Your task to perform on an android device: Open calendar and show me the third week of next month Image 0: 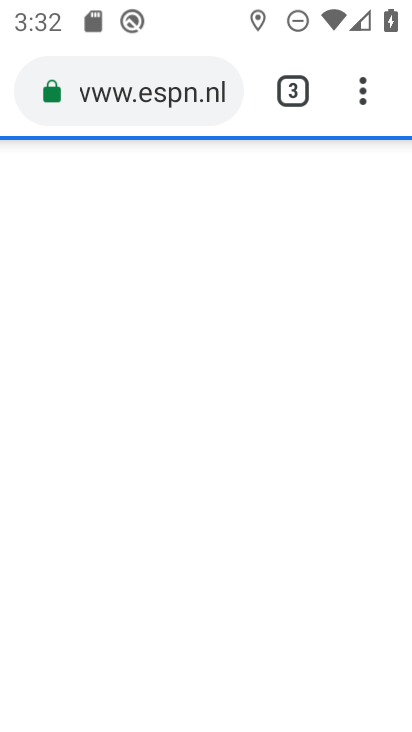
Step 0: press home button
Your task to perform on an android device: Open calendar and show me the third week of next month Image 1: 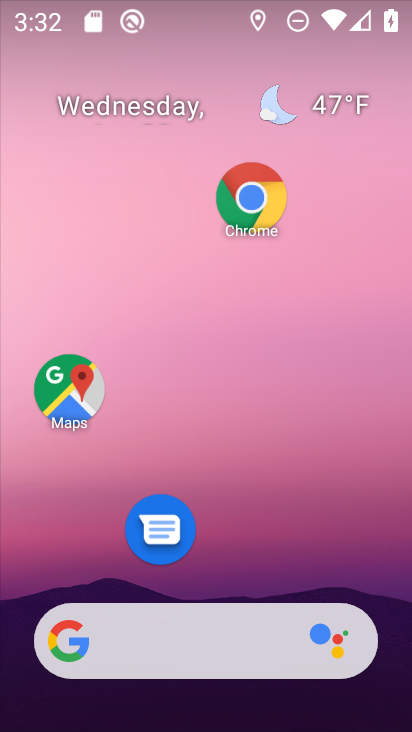
Step 1: drag from (257, 410) to (214, 142)
Your task to perform on an android device: Open calendar and show me the third week of next month Image 2: 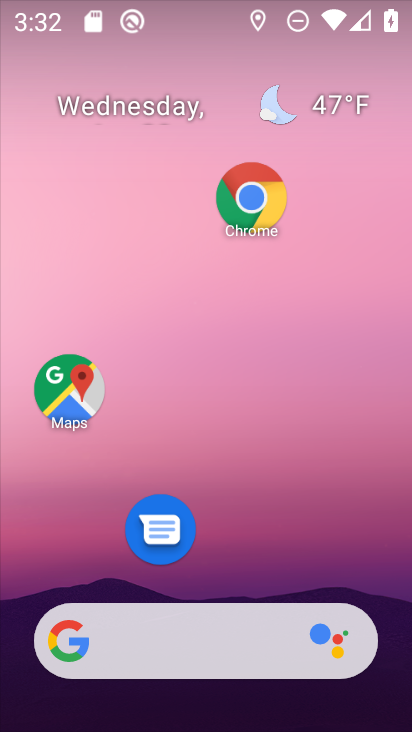
Step 2: drag from (248, 538) to (234, 55)
Your task to perform on an android device: Open calendar and show me the third week of next month Image 3: 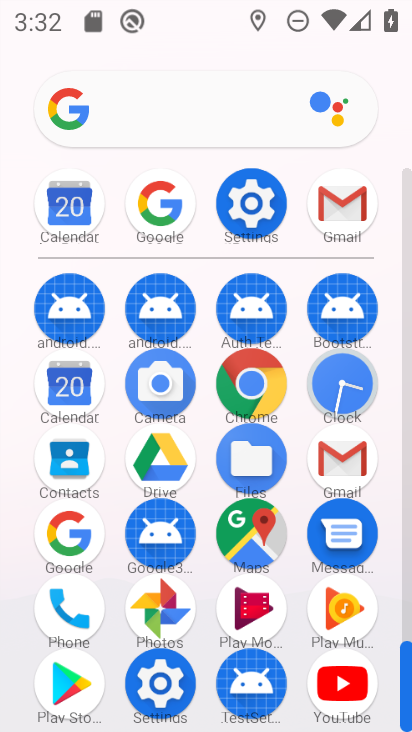
Step 3: click (70, 403)
Your task to perform on an android device: Open calendar and show me the third week of next month Image 4: 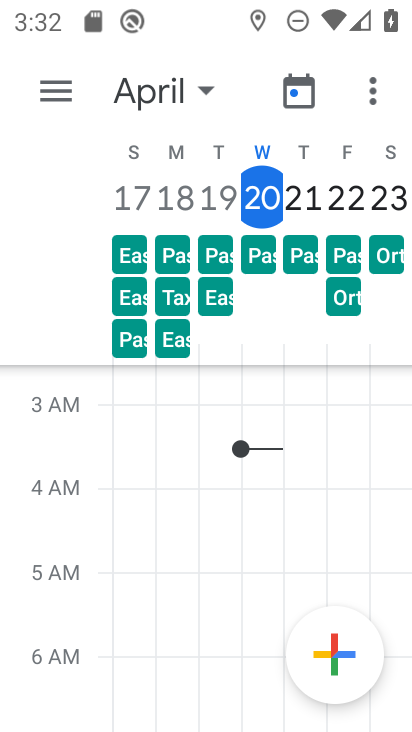
Step 4: click (204, 87)
Your task to perform on an android device: Open calendar and show me the third week of next month Image 5: 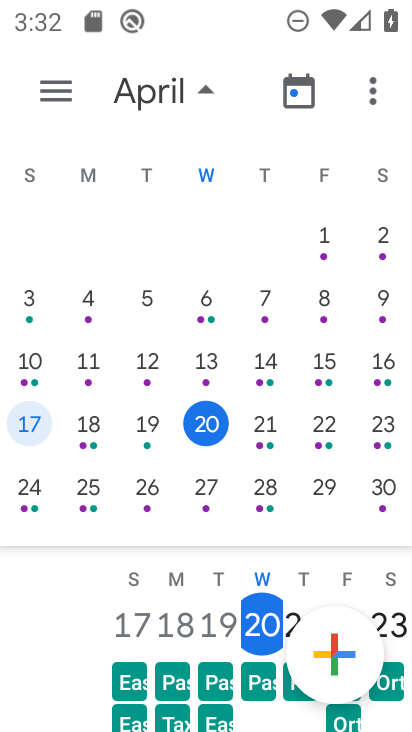
Step 5: drag from (354, 318) to (23, 404)
Your task to perform on an android device: Open calendar and show me the third week of next month Image 6: 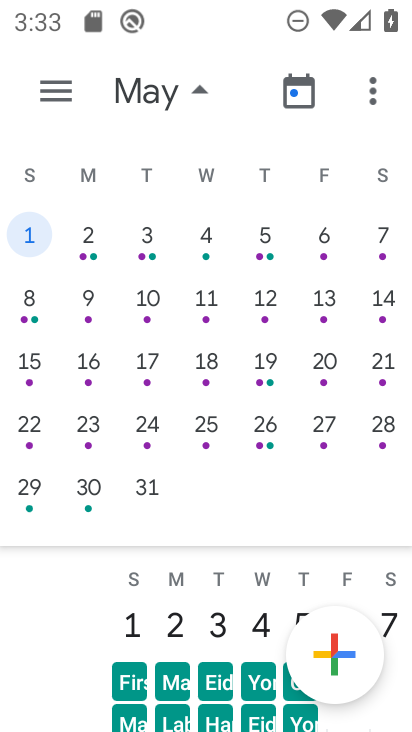
Step 6: click (41, 361)
Your task to perform on an android device: Open calendar and show me the third week of next month Image 7: 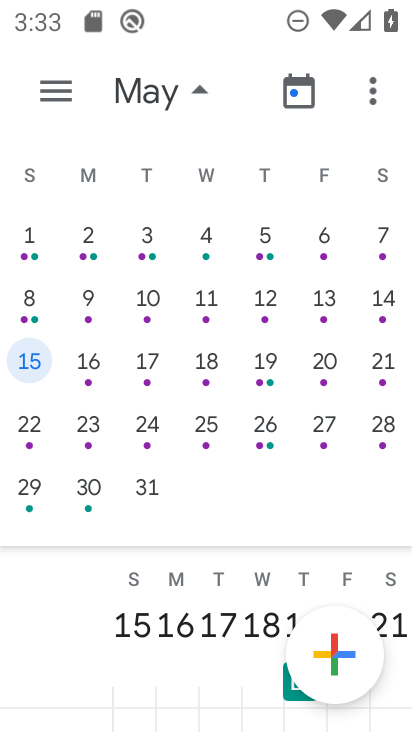
Step 7: task complete